Your task to perform on an android device: Clear the shopping cart on walmart.com. Add "razer naga" to the cart on walmart.com Image 0: 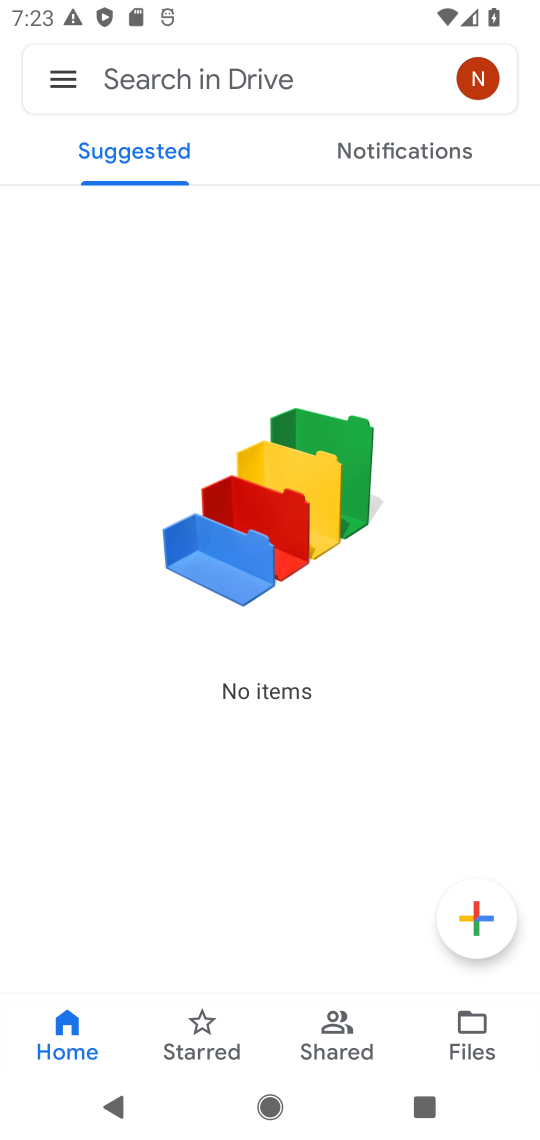
Step 0: press home button
Your task to perform on an android device: Clear the shopping cart on walmart.com. Add "razer naga" to the cart on walmart.com Image 1: 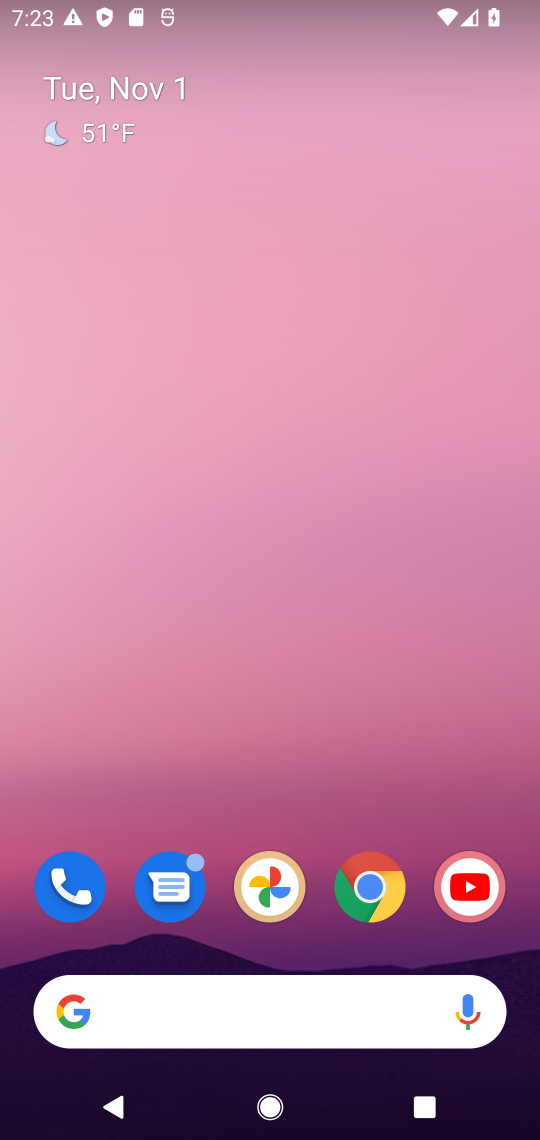
Step 1: drag from (323, 778) to (291, 81)
Your task to perform on an android device: Clear the shopping cart on walmart.com. Add "razer naga" to the cart on walmart.com Image 2: 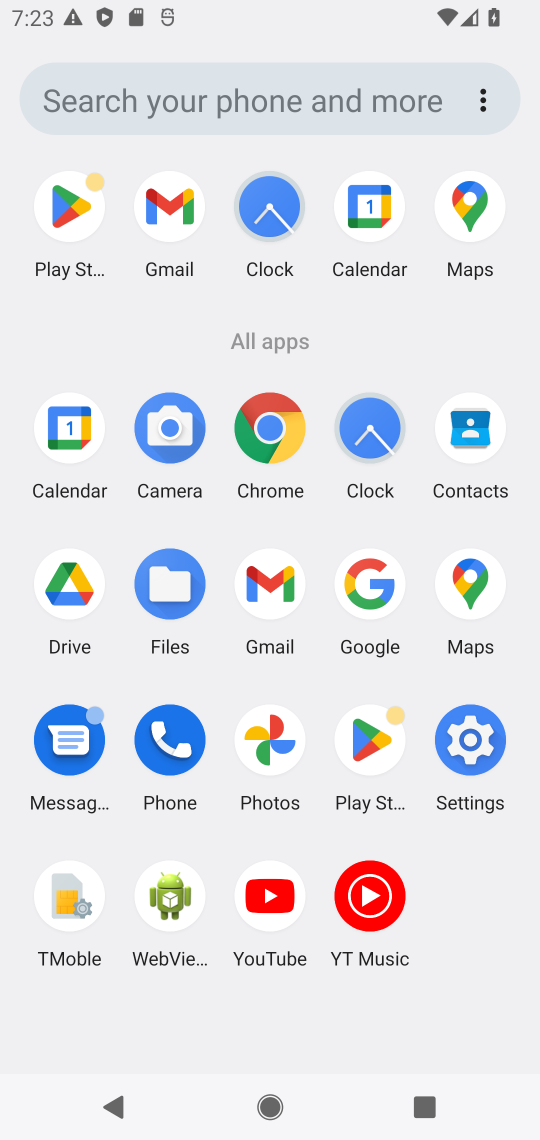
Step 2: click (370, 571)
Your task to perform on an android device: Clear the shopping cart on walmart.com. Add "razer naga" to the cart on walmart.com Image 3: 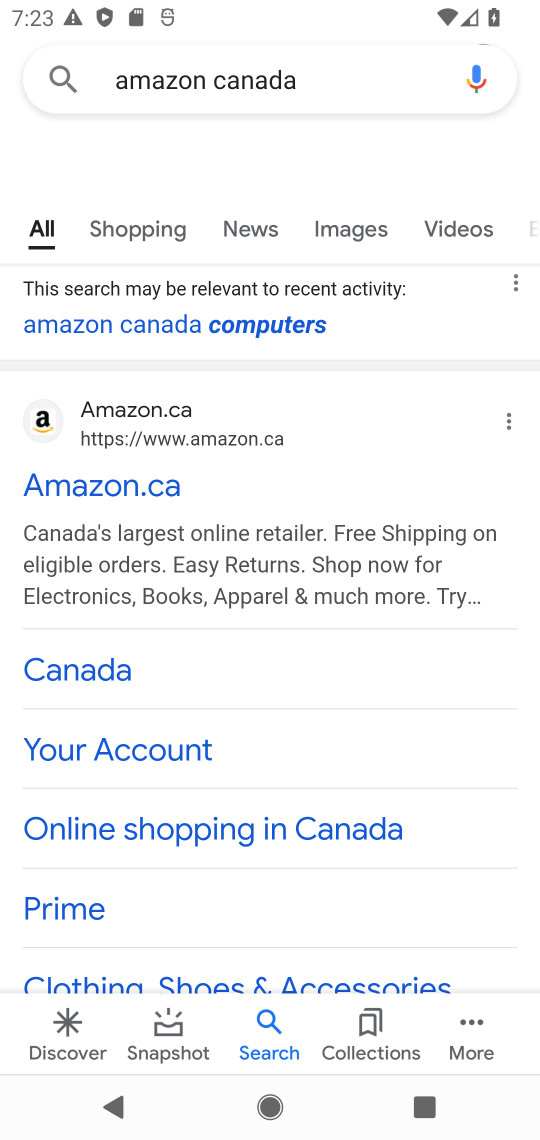
Step 3: click (300, 78)
Your task to perform on an android device: Clear the shopping cart on walmart.com. Add "razer naga" to the cart on walmart.com Image 4: 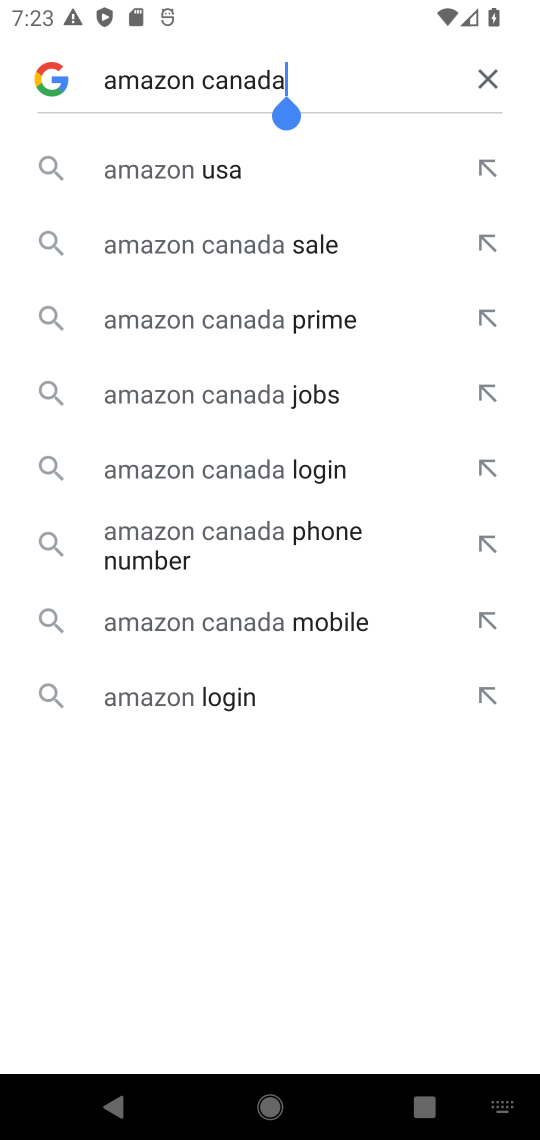
Step 4: click (458, 71)
Your task to perform on an android device: Clear the shopping cart on walmart.com. Add "razer naga" to the cart on walmart.com Image 5: 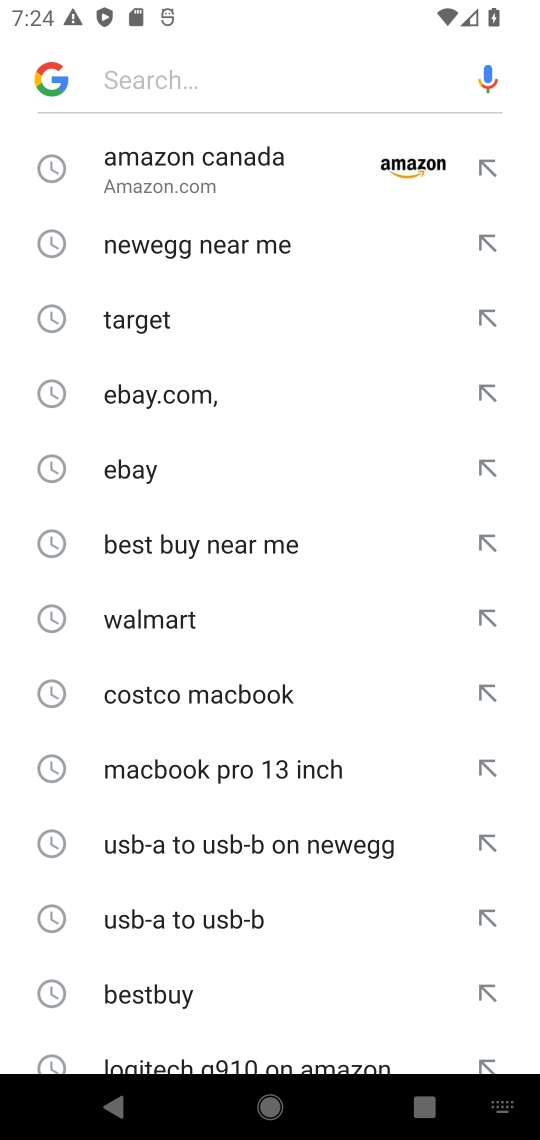
Step 5: click (227, 92)
Your task to perform on an android device: Clear the shopping cart on walmart.com. Add "razer naga" to the cart on walmart.com Image 6: 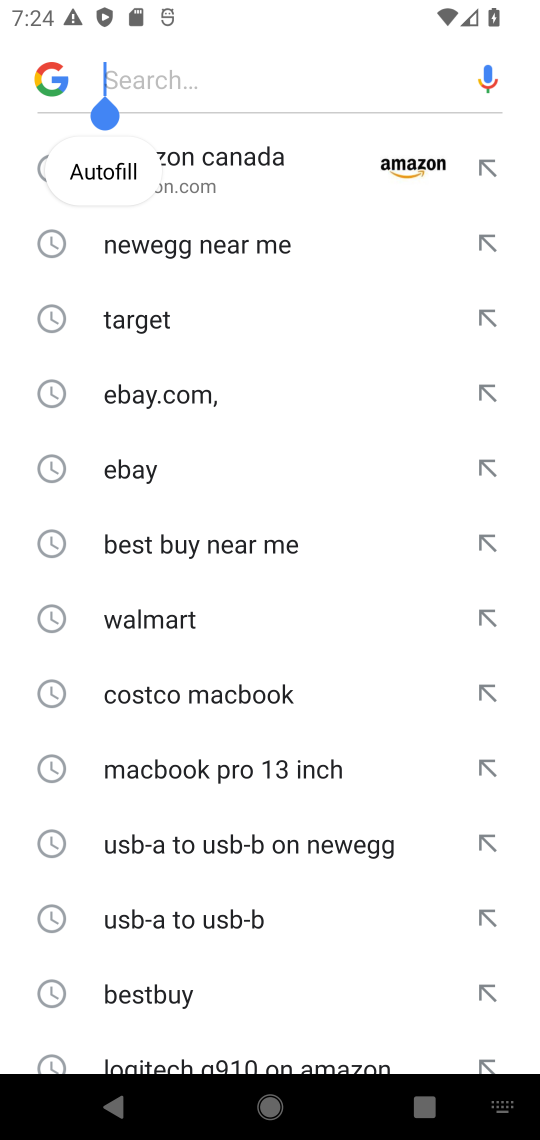
Step 6: type "walmart "
Your task to perform on an android device: Clear the shopping cart on walmart.com. Add "razer naga" to the cart on walmart.com Image 7: 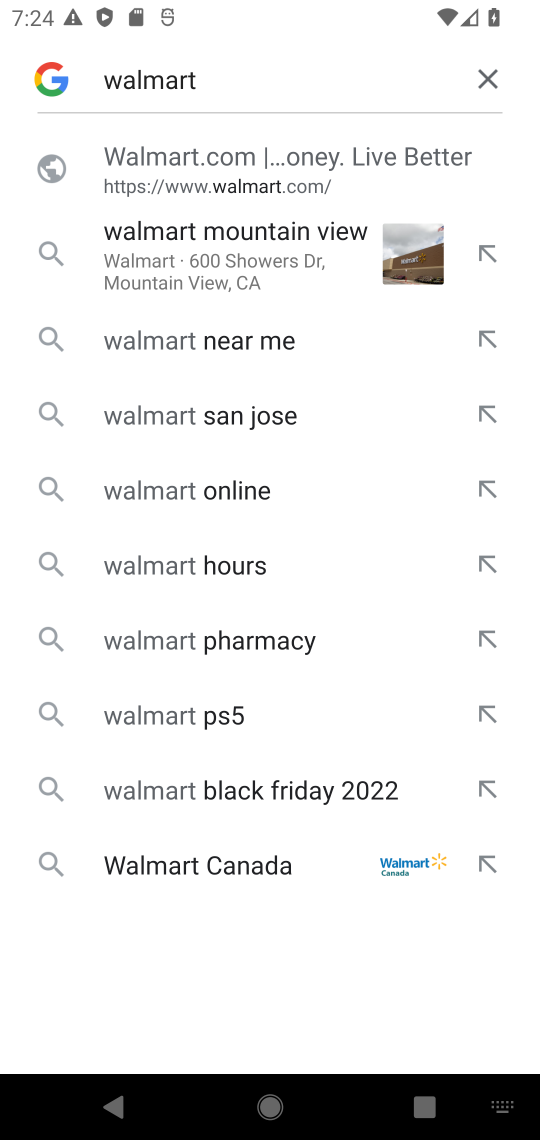
Step 7: click (206, 173)
Your task to perform on an android device: Clear the shopping cart on walmart.com. Add "razer naga" to the cart on walmart.com Image 8: 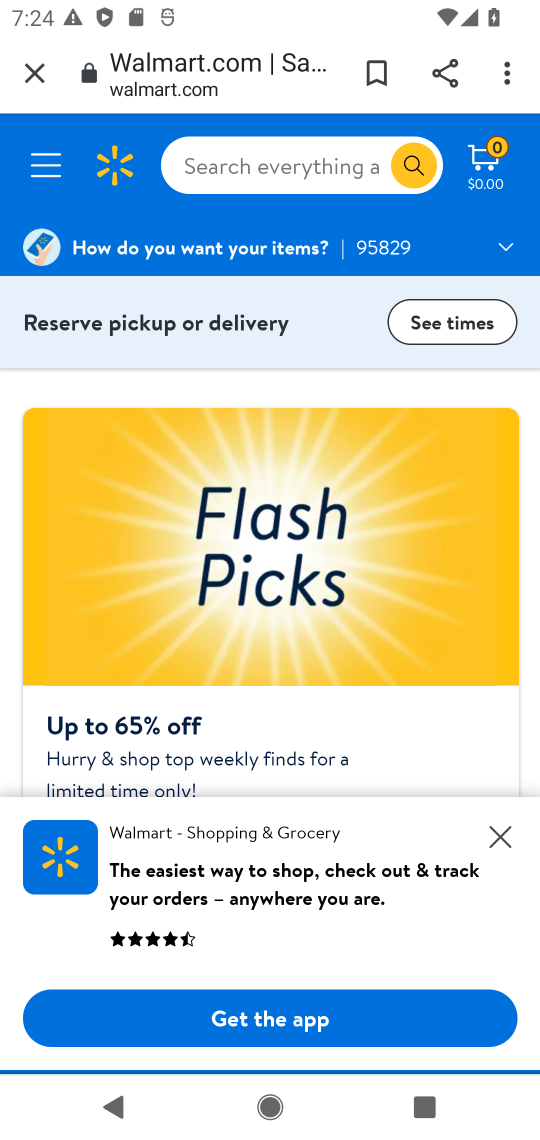
Step 8: click (284, 136)
Your task to perform on an android device: Clear the shopping cart on walmart.com. Add "razer naga" to the cart on walmart.com Image 9: 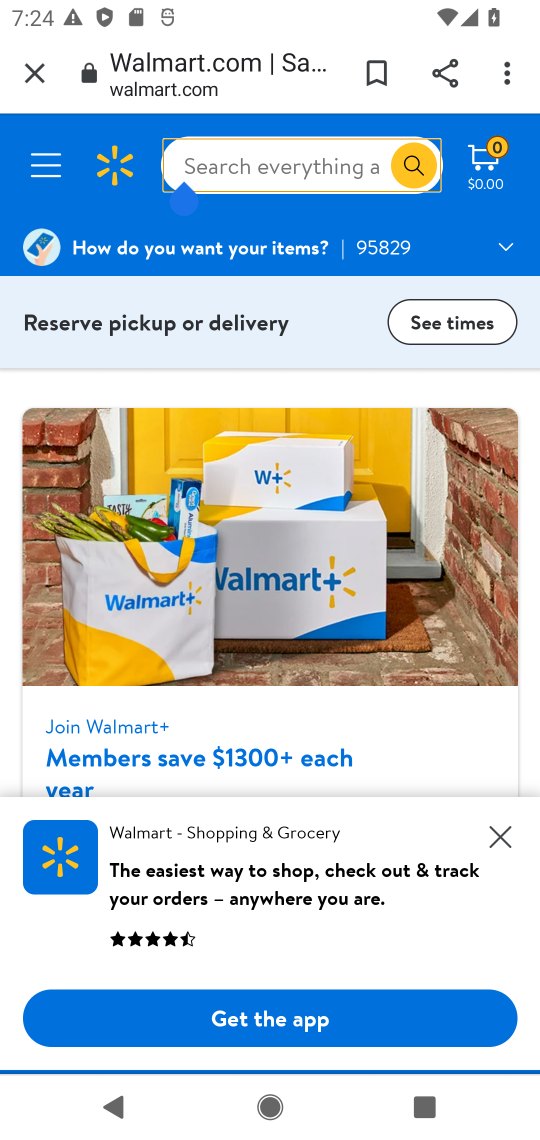
Step 9: type "razer naga "
Your task to perform on an android device: Clear the shopping cart on walmart.com. Add "razer naga" to the cart on walmart.com Image 10: 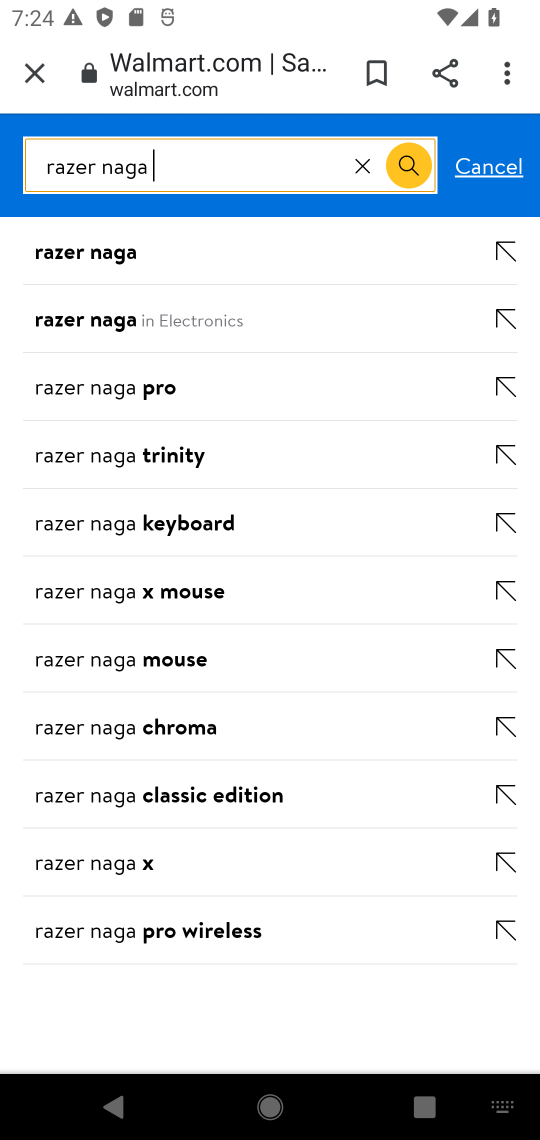
Step 10: click (133, 249)
Your task to perform on an android device: Clear the shopping cart on walmart.com. Add "razer naga" to the cart on walmart.com Image 11: 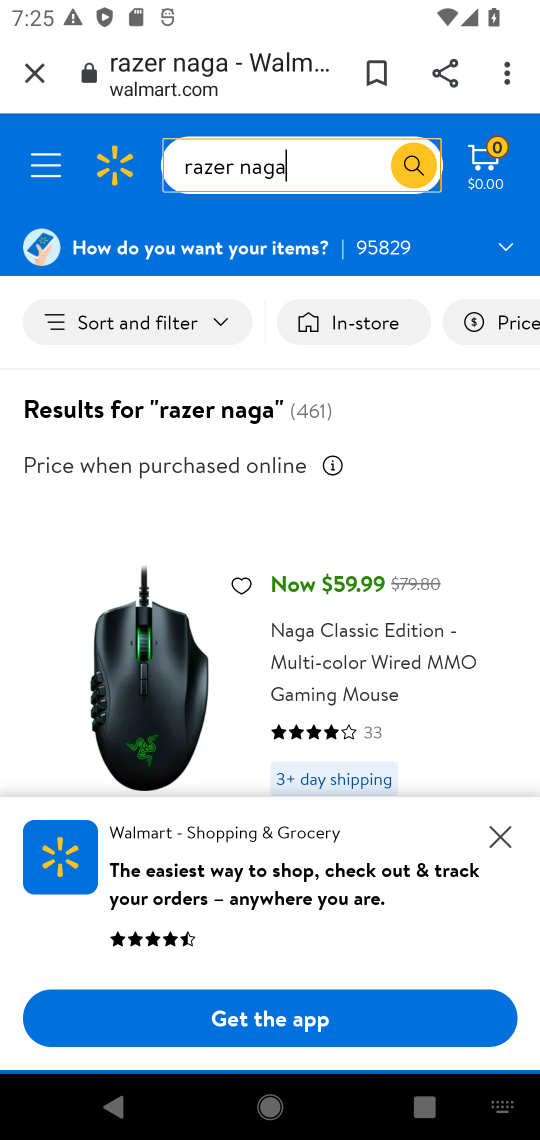
Step 11: click (522, 836)
Your task to perform on an android device: Clear the shopping cart on walmart.com. Add "razer naga" to the cart on walmart.com Image 12: 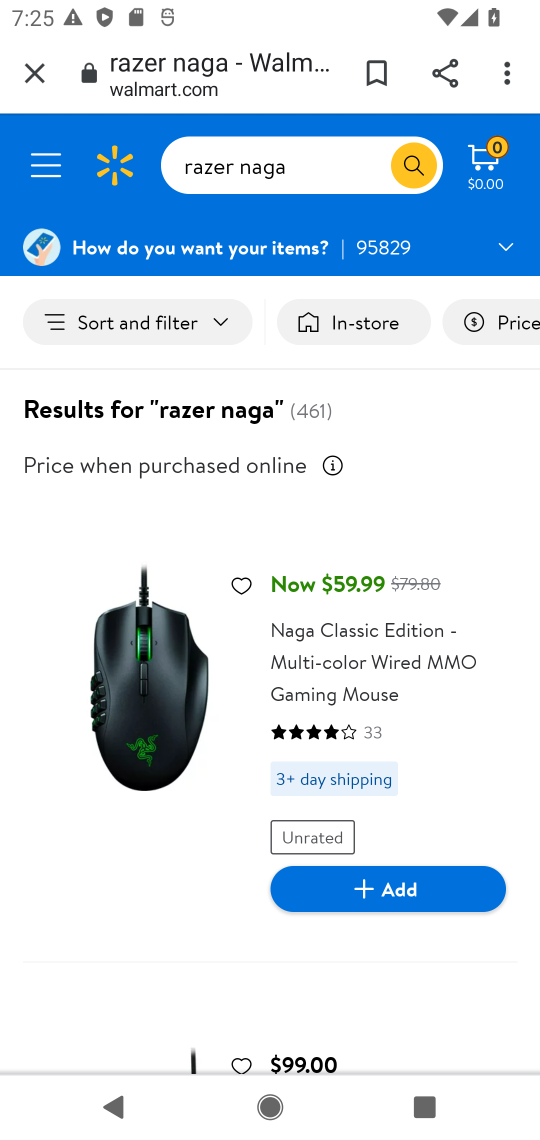
Step 12: click (377, 879)
Your task to perform on an android device: Clear the shopping cart on walmart.com. Add "razer naga" to the cart on walmart.com Image 13: 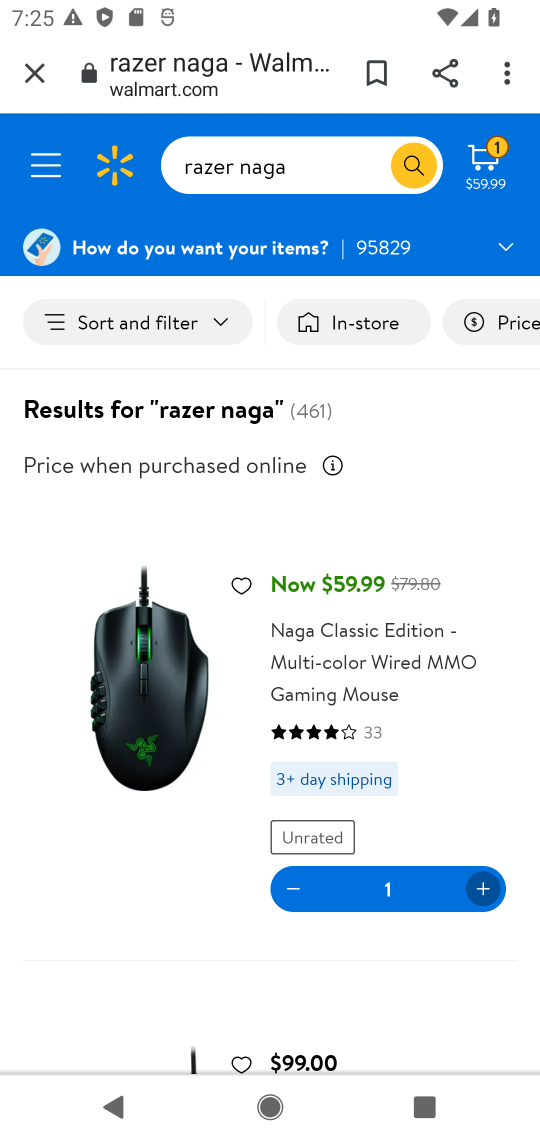
Step 13: task complete